Your task to perform on an android device: turn vacation reply on in the gmail app Image 0: 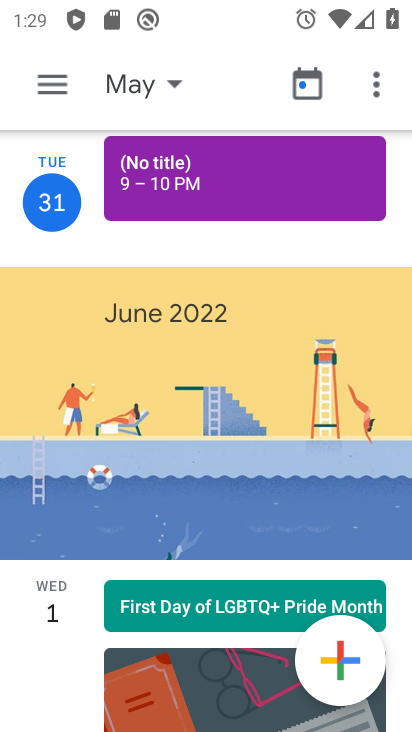
Step 0: press home button
Your task to perform on an android device: turn vacation reply on in the gmail app Image 1: 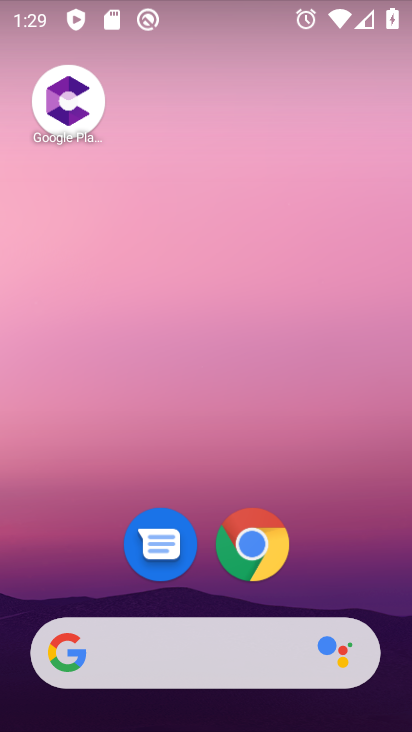
Step 1: drag from (314, 592) to (282, 1)
Your task to perform on an android device: turn vacation reply on in the gmail app Image 2: 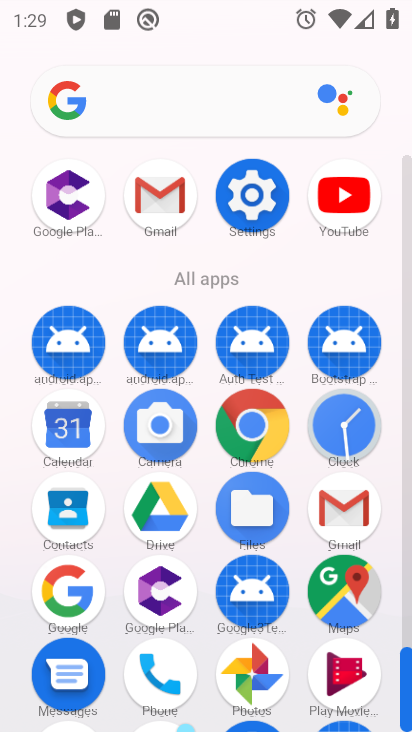
Step 2: click (158, 191)
Your task to perform on an android device: turn vacation reply on in the gmail app Image 3: 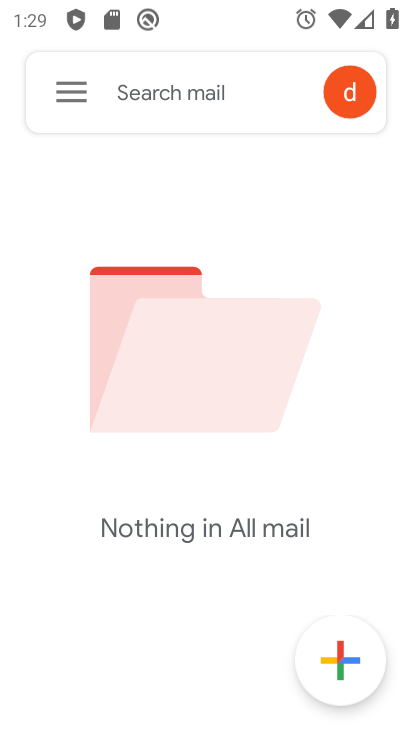
Step 3: click (68, 99)
Your task to perform on an android device: turn vacation reply on in the gmail app Image 4: 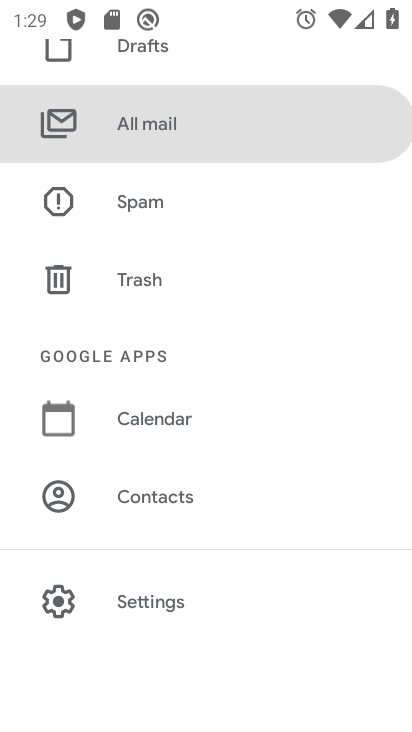
Step 4: click (112, 601)
Your task to perform on an android device: turn vacation reply on in the gmail app Image 5: 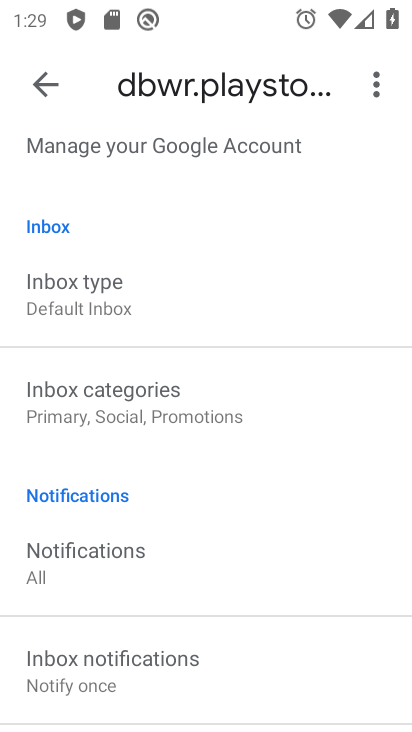
Step 5: drag from (152, 623) to (137, 288)
Your task to perform on an android device: turn vacation reply on in the gmail app Image 6: 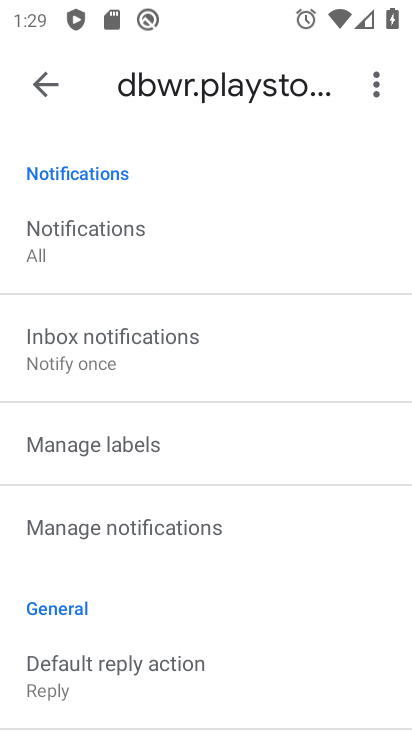
Step 6: drag from (114, 612) to (115, 151)
Your task to perform on an android device: turn vacation reply on in the gmail app Image 7: 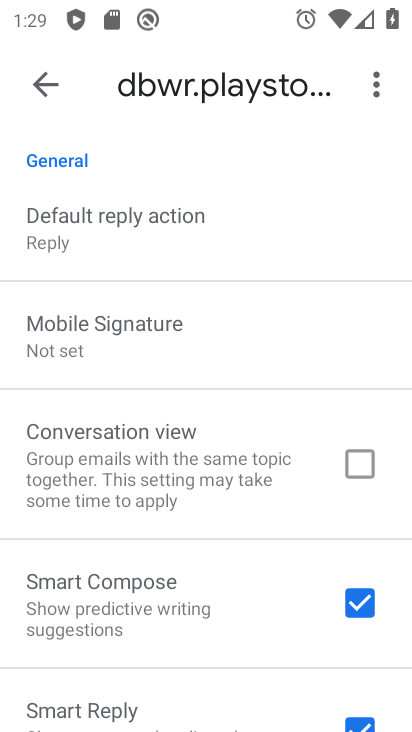
Step 7: drag from (137, 614) to (105, 279)
Your task to perform on an android device: turn vacation reply on in the gmail app Image 8: 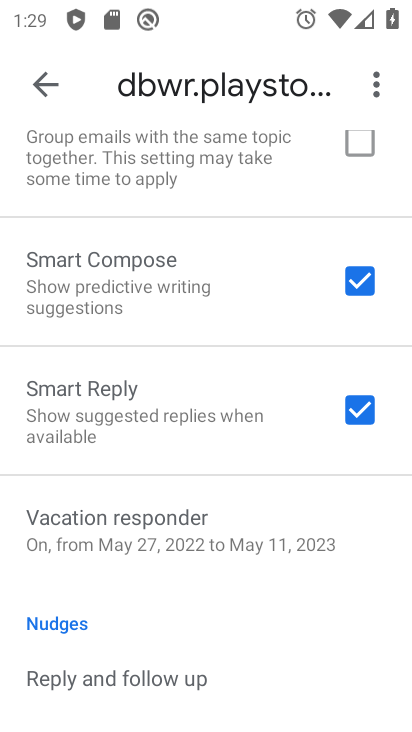
Step 8: click (108, 532)
Your task to perform on an android device: turn vacation reply on in the gmail app Image 9: 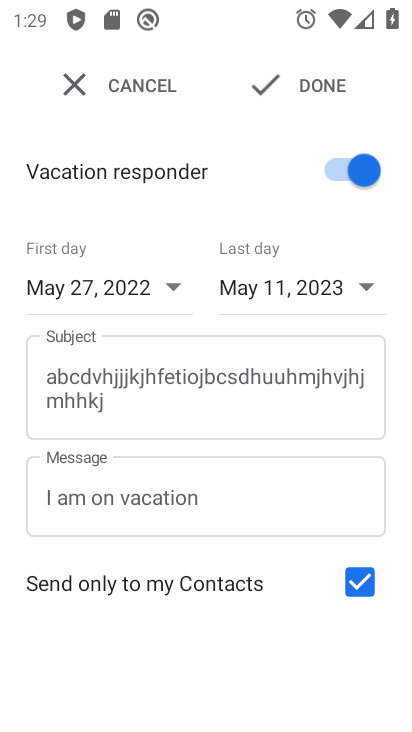
Step 9: click (302, 85)
Your task to perform on an android device: turn vacation reply on in the gmail app Image 10: 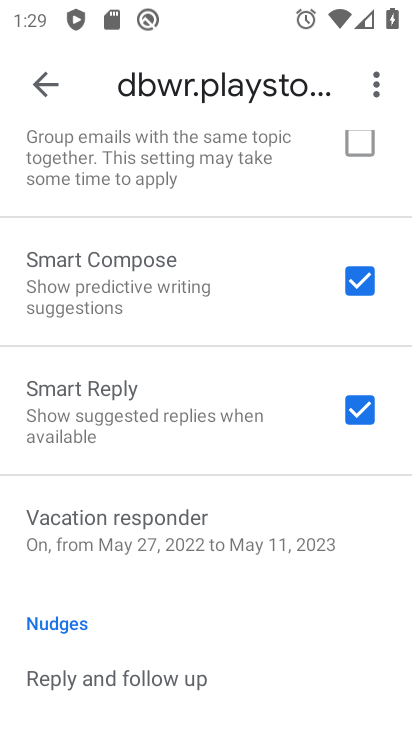
Step 10: task complete